Your task to perform on an android device: turn pop-ups on in chrome Image 0: 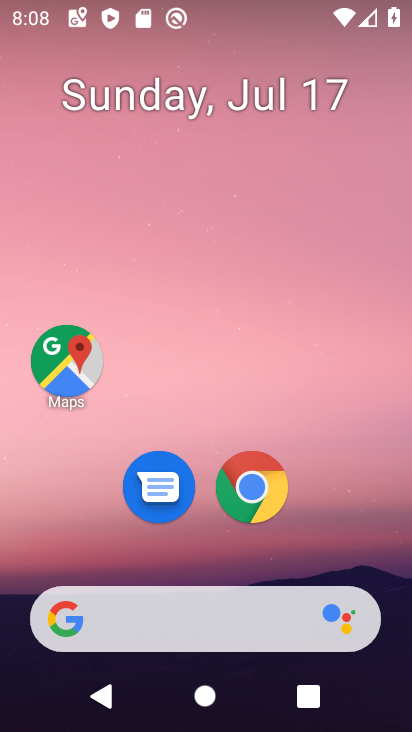
Step 0: click (248, 492)
Your task to perform on an android device: turn pop-ups on in chrome Image 1: 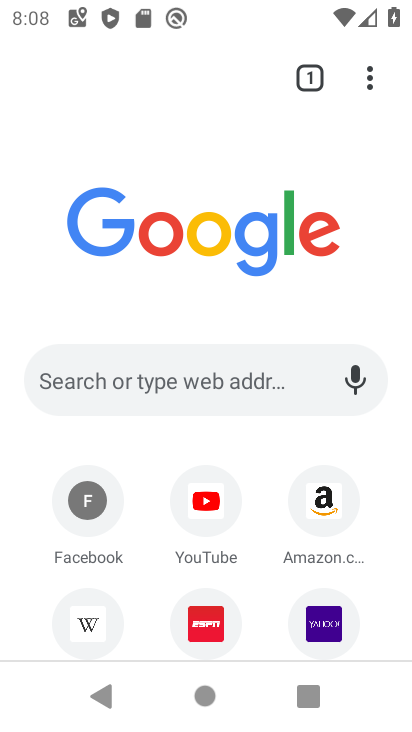
Step 1: drag from (369, 76) to (112, 538)
Your task to perform on an android device: turn pop-ups on in chrome Image 2: 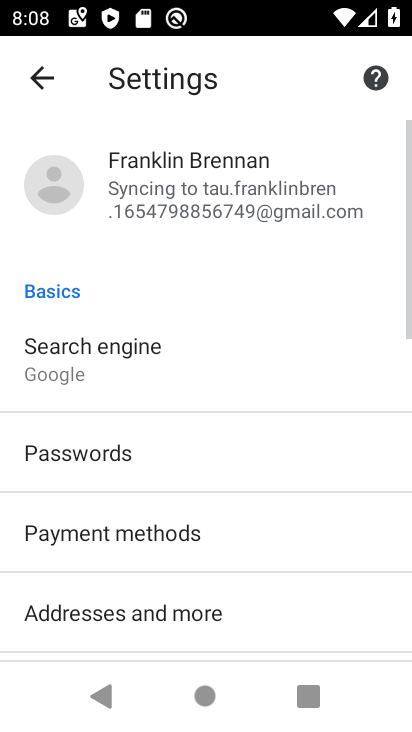
Step 2: drag from (138, 593) to (230, 164)
Your task to perform on an android device: turn pop-ups on in chrome Image 3: 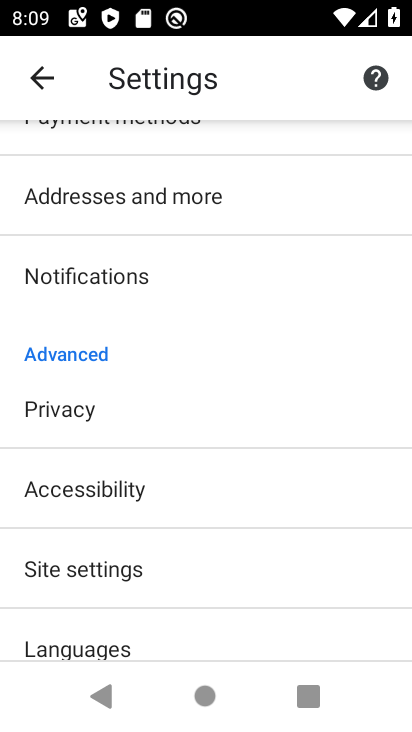
Step 3: click (138, 569)
Your task to perform on an android device: turn pop-ups on in chrome Image 4: 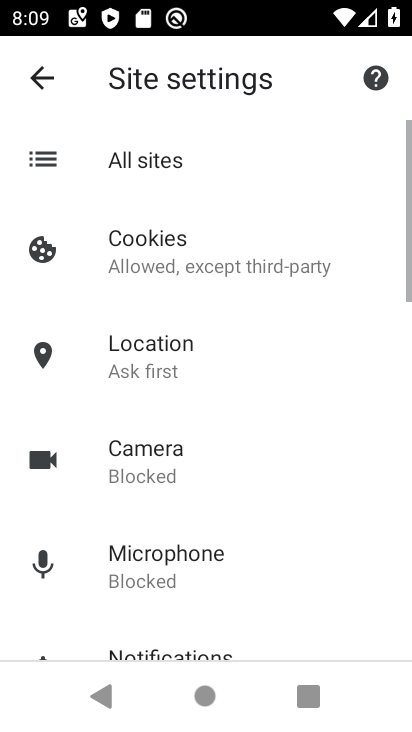
Step 4: drag from (166, 581) to (265, 162)
Your task to perform on an android device: turn pop-ups on in chrome Image 5: 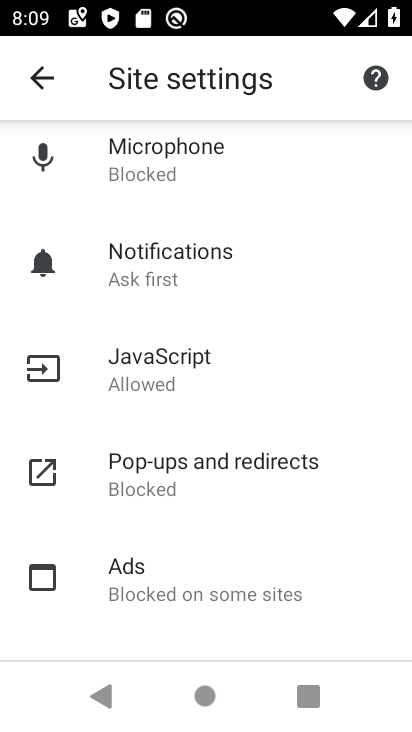
Step 5: click (185, 483)
Your task to perform on an android device: turn pop-ups on in chrome Image 6: 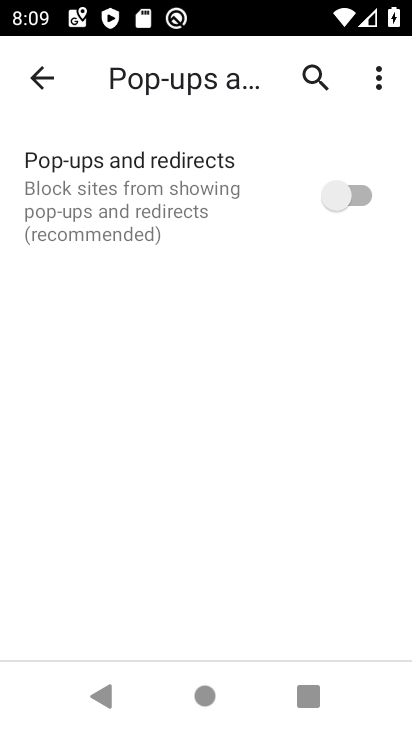
Step 6: click (339, 191)
Your task to perform on an android device: turn pop-ups on in chrome Image 7: 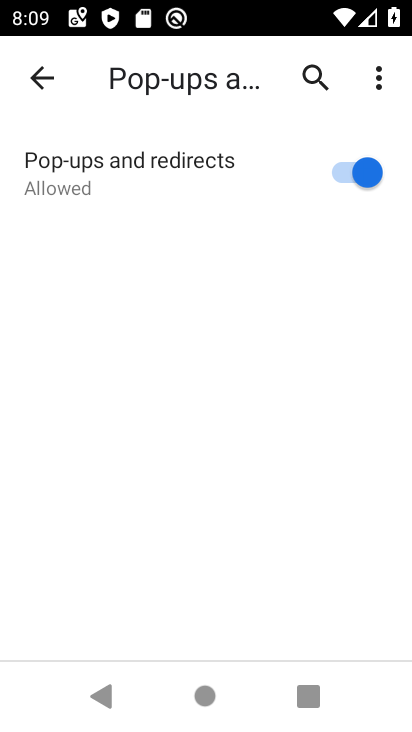
Step 7: task complete